Your task to perform on an android device: Open calendar and show me the first week of next month Image 0: 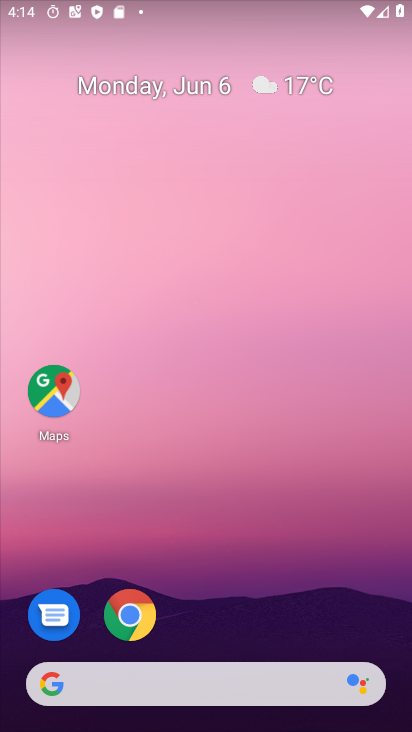
Step 0: drag from (347, 658) to (309, 5)
Your task to perform on an android device: Open calendar and show me the first week of next month Image 1: 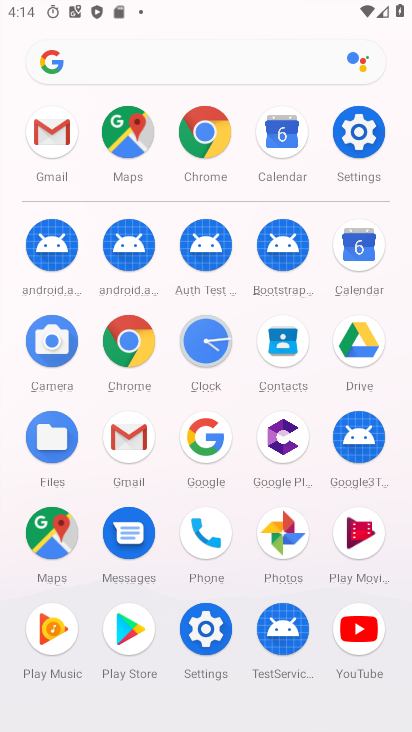
Step 1: click (363, 238)
Your task to perform on an android device: Open calendar and show me the first week of next month Image 2: 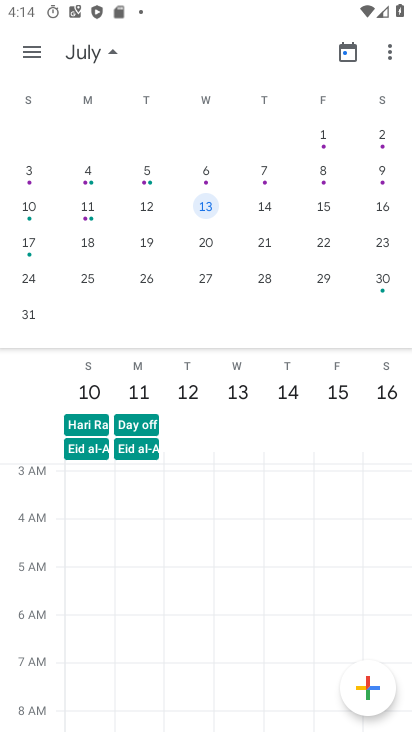
Step 2: drag from (373, 243) to (125, 234)
Your task to perform on an android device: Open calendar and show me the first week of next month Image 3: 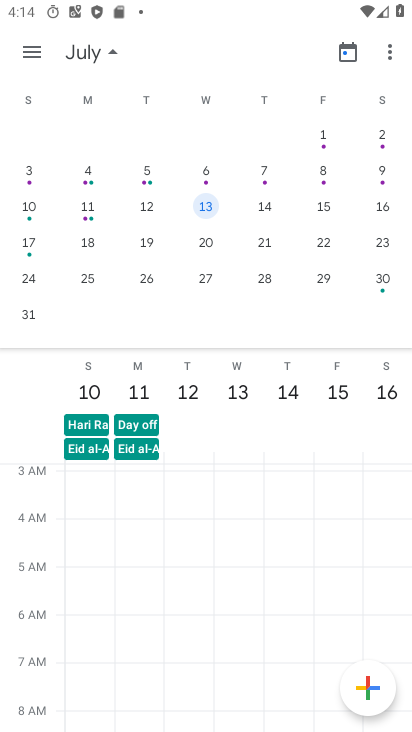
Step 3: click (209, 168)
Your task to perform on an android device: Open calendar and show me the first week of next month Image 4: 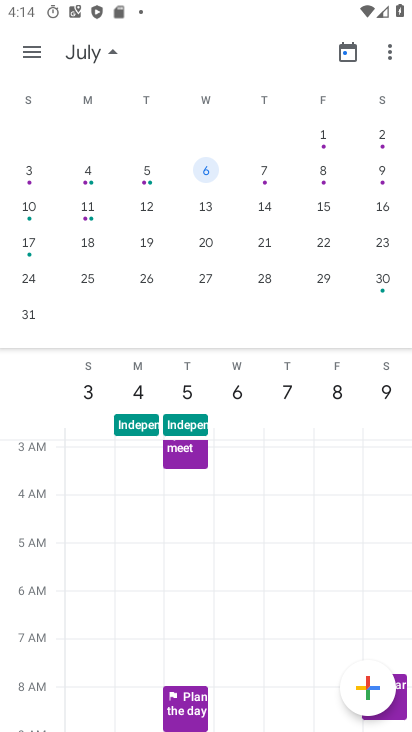
Step 4: task complete